Your task to perform on an android device: Go to notification settings Image 0: 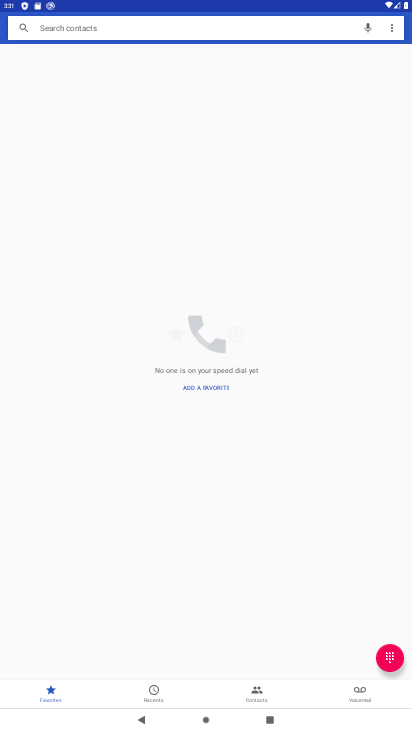
Step 0: press home button
Your task to perform on an android device: Go to notification settings Image 1: 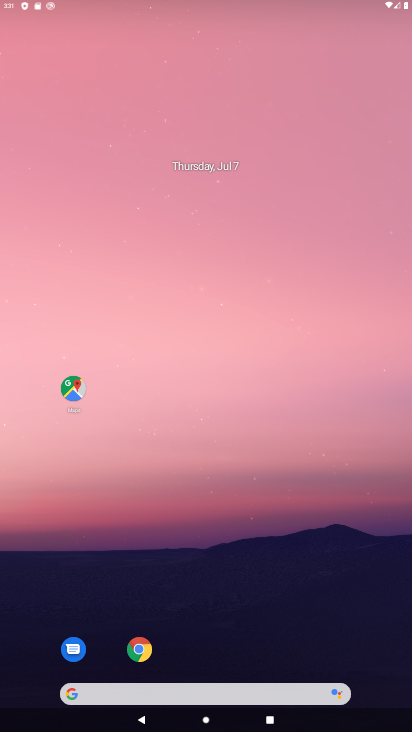
Step 1: drag from (377, 683) to (194, 50)
Your task to perform on an android device: Go to notification settings Image 2: 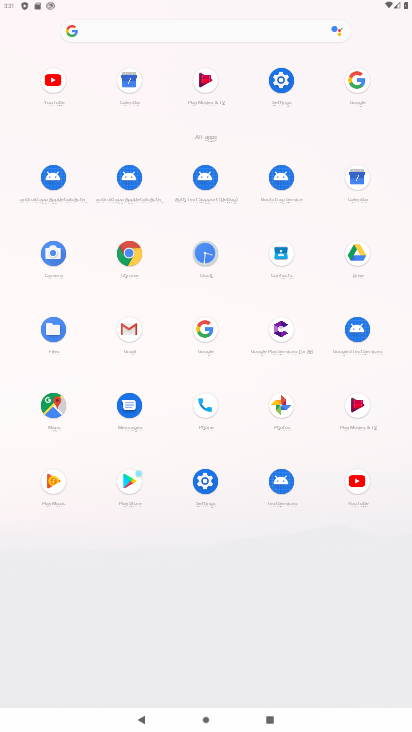
Step 2: click (201, 502)
Your task to perform on an android device: Go to notification settings Image 3: 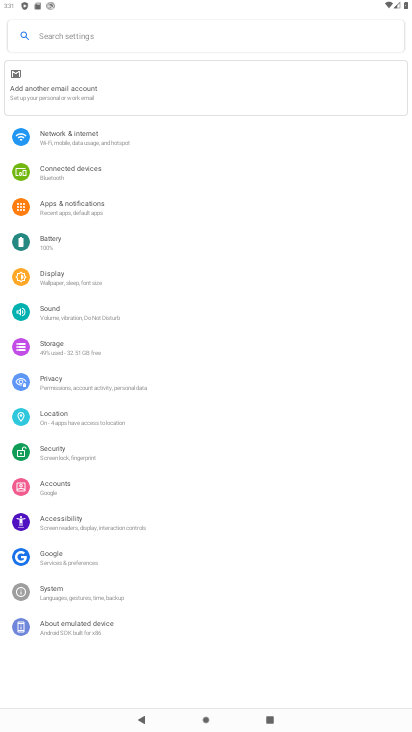
Step 3: click (101, 218)
Your task to perform on an android device: Go to notification settings Image 4: 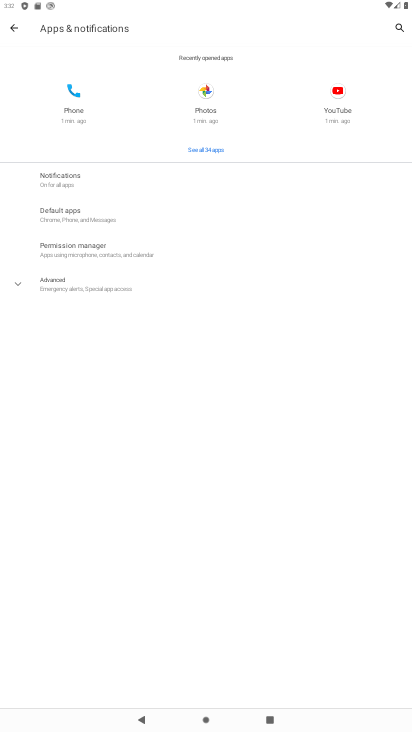
Step 4: click (96, 190)
Your task to perform on an android device: Go to notification settings Image 5: 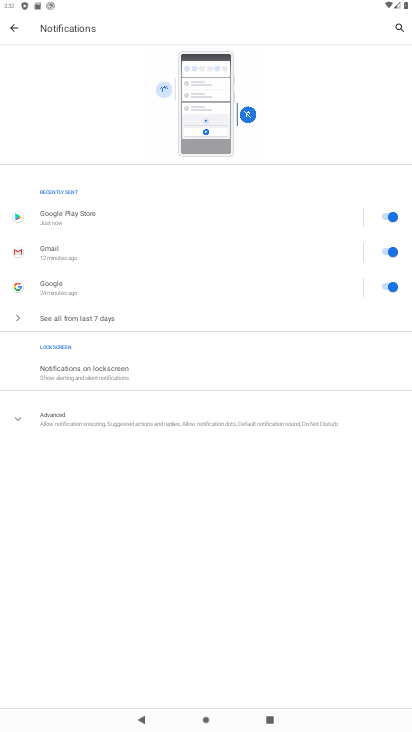
Step 5: task complete